Your task to perform on an android device: turn off notifications in google photos Image 0: 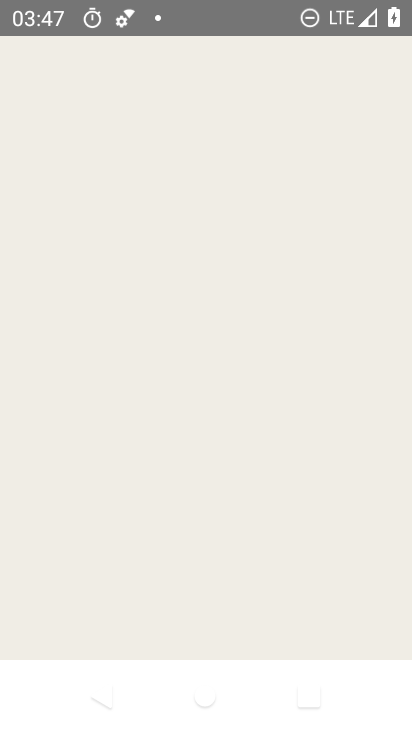
Step 0: drag from (261, 595) to (300, 74)
Your task to perform on an android device: turn off notifications in google photos Image 1: 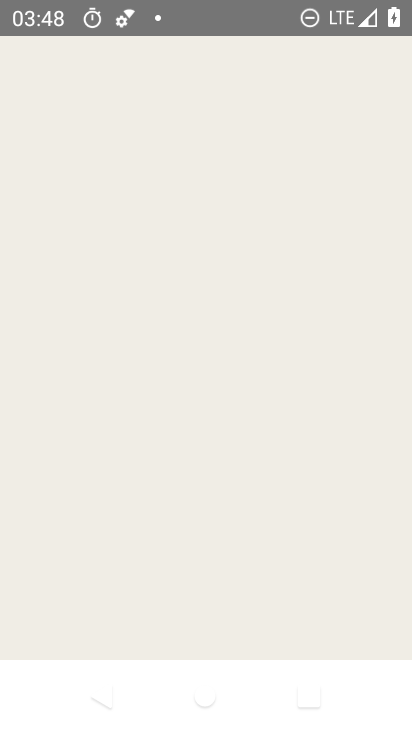
Step 1: press home button
Your task to perform on an android device: turn off notifications in google photos Image 2: 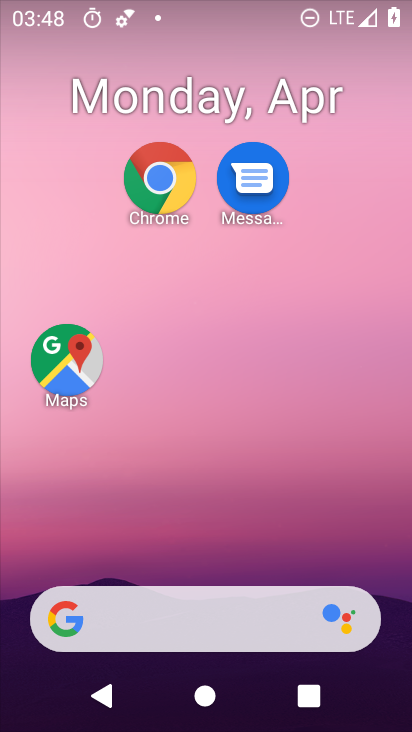
Step 2: drag from (295, 604) to (325, 0)
Your task to perform on an android device: turn off notifications in google photos Image 3: 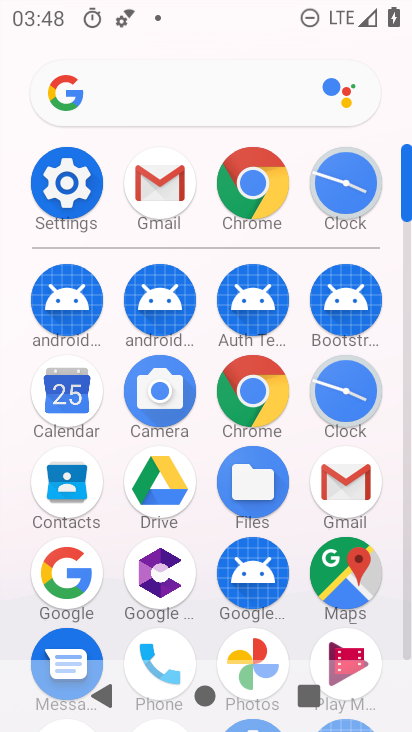
Step 3: drag from (294, 615) to (317, 267)
Your task to perform on an android device: turn off notifications in google photos Image 4: 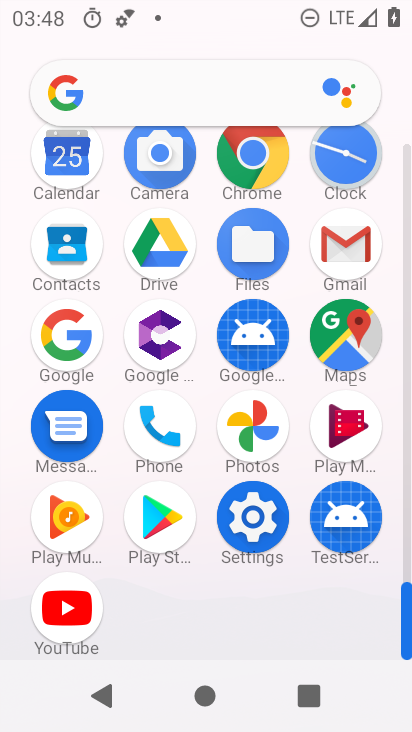
Step 4: click (256, 418)
Your task to perform on an android device: turn off notifications in google photos Image 5: 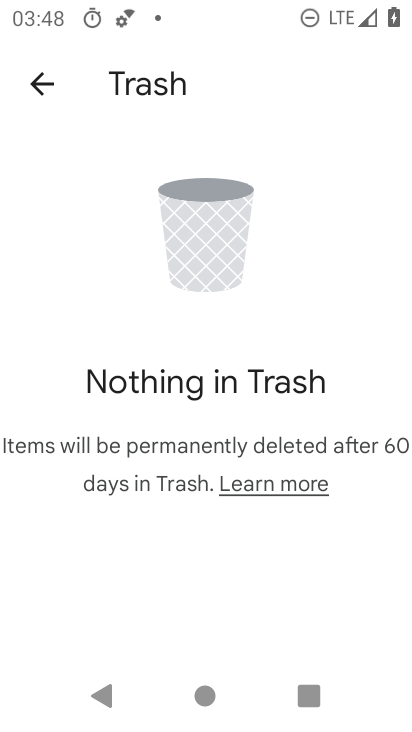
Step 5: click (37, 71)
Your task to perform on an android device: turn off notifications in google photos Image 6: 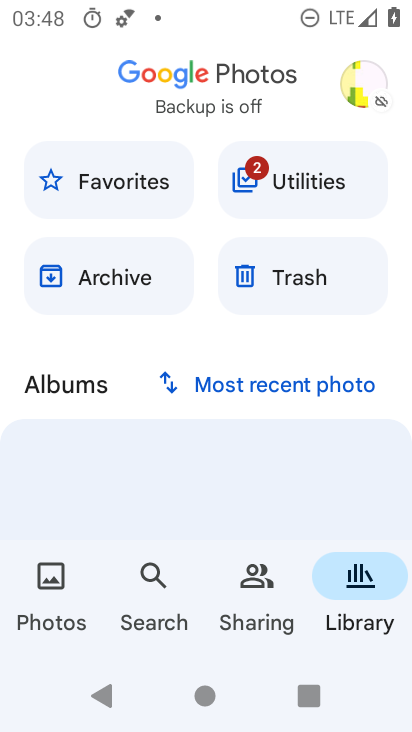
Step 6: drag from (284, 526) to (283, 586)
Your task to perform on an android device: turn off notifications in google photos Image 7: 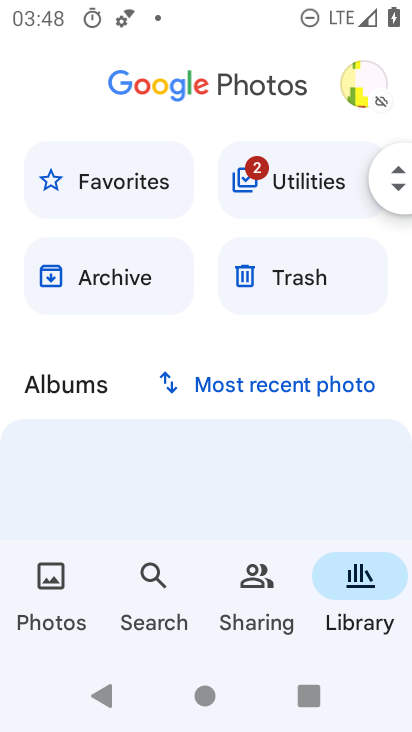
Step 7: click (370, 96)
Your task to perform on an android device: turn off notifications in google photos Image 8: 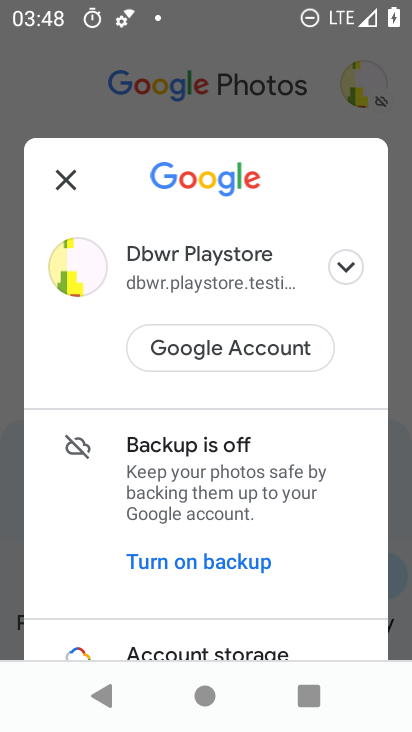
Step 8: drag from (319, 632) to (326, 132)
Your task to perform on an android device: turn off notifications in google photos Image 9: 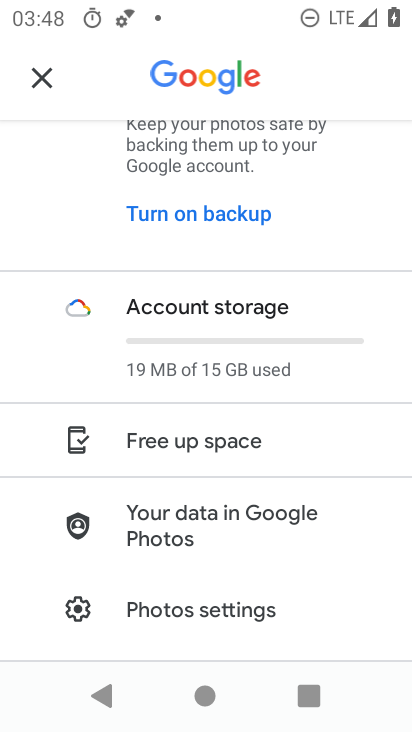
Step 9: drag from (318, 649) to (366, 105)
Your task to perform on an android device: turn off notifications in google photos Image 10: 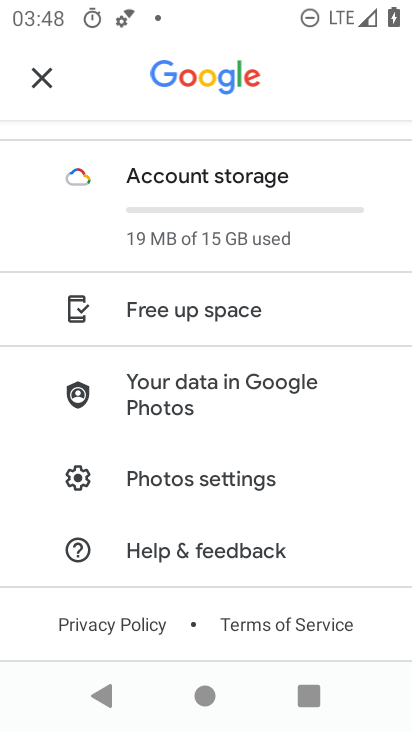
Step 10: drag from (283, 309) to (236, 724)
Your task to perform on an android device: turn off notifications in google photos Image 11: 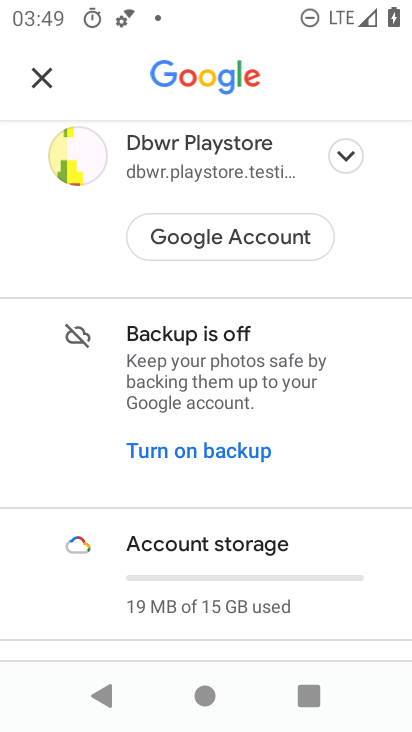
Step 11: drag from (277, 381) to (262, 638)
Your task to perform on an android device: turn off notifications in google photos Image 12: 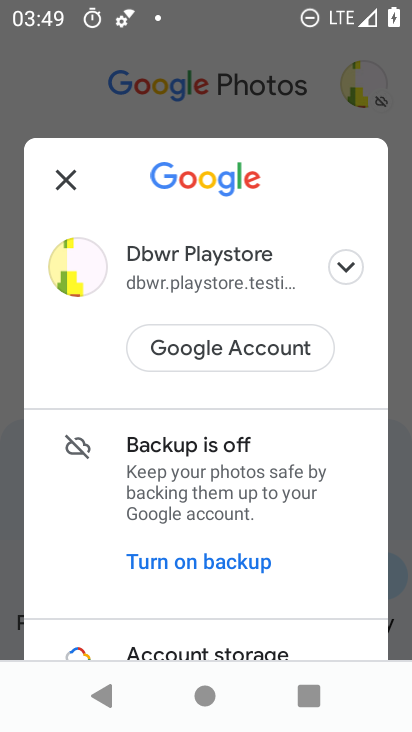
Step 12: click (284, 496)
Your task to perform on an android device: turn off notifications in google photos Image 13: 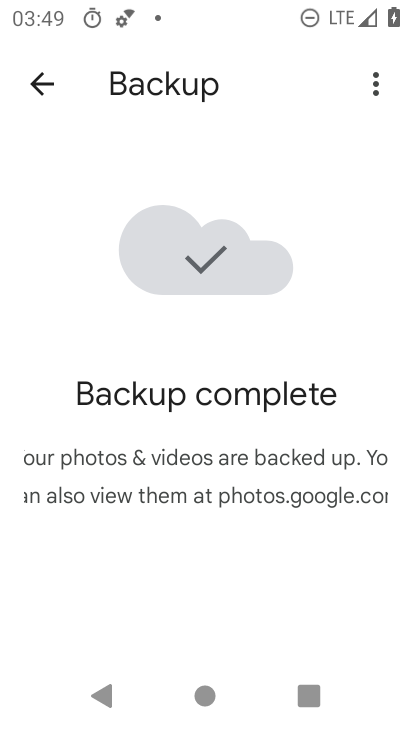
Step 13: click (376, 84)
Your task to perform on an android device: turn off notifications in google photos Image 14: 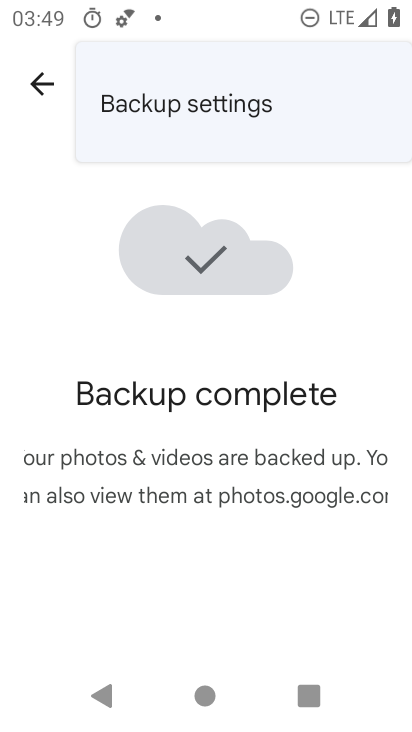
Step 14: click (220, 109)
Your task to perform on an android device: turn off notifications in google photos Image 15: 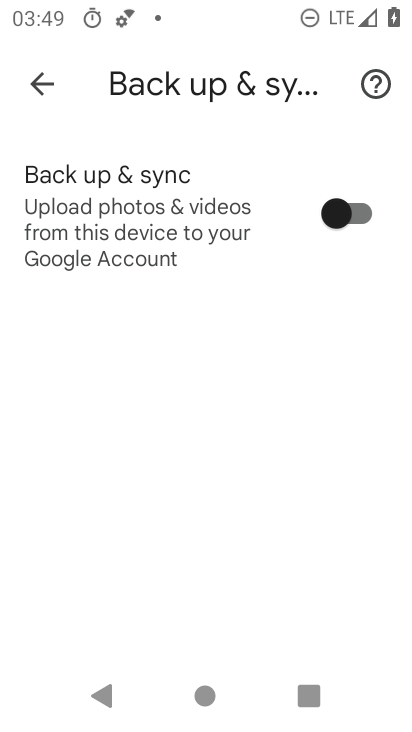
Step 15: click (361, 212)
Your task to perform on an android device: turn off notifications in google photos Image 16: 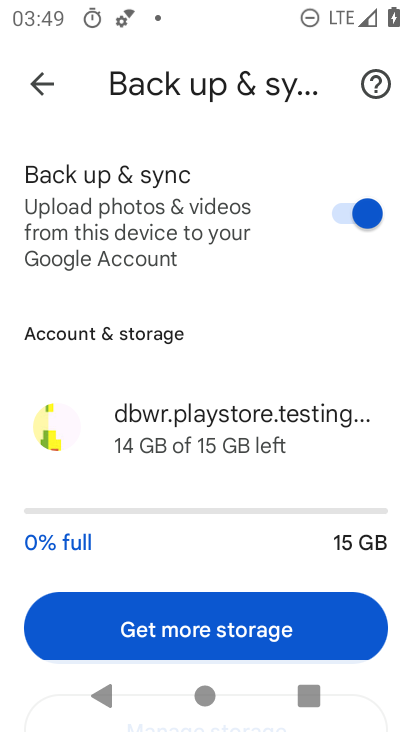
Step 16: drag from (215, 567) to (232, 123)
Your task to perform on an android device: turn off notifications in google photos Image 17: 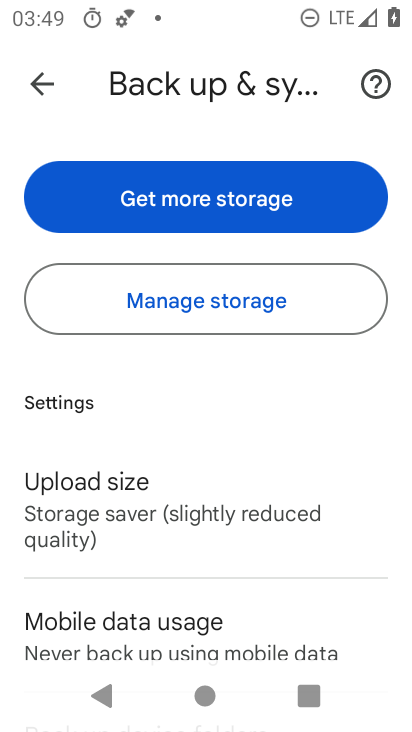
Step 17: click (264, 526)
Your task to perform on an android device: turn off notifications in google photos Image 18: 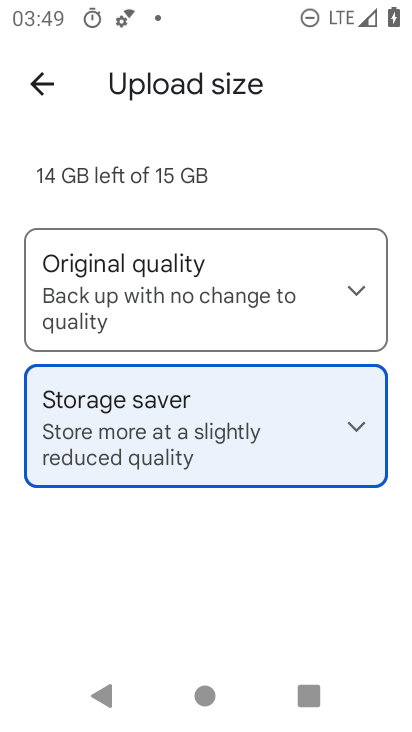
Step 18: click (44, 87)
Your task to perform on an android device: turn off notifications in google photos Image 19: 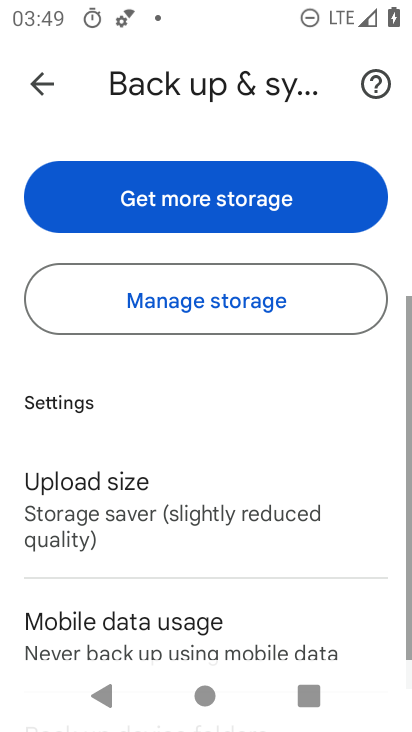
Step 19: drag from (208, 637) to (271, 104)
Your task to perform on an android device: turn off notifications in google photos Image 20: 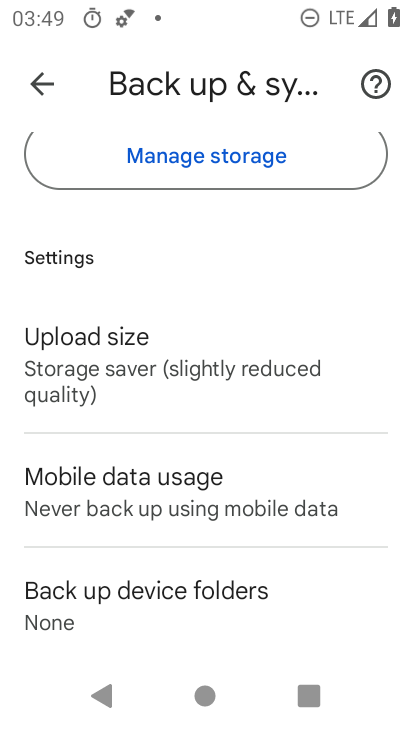
Step 20: drag from (247, 247) to (405, 716)
Your task to perform on an android device: turn off notifications in google photos Image 21: 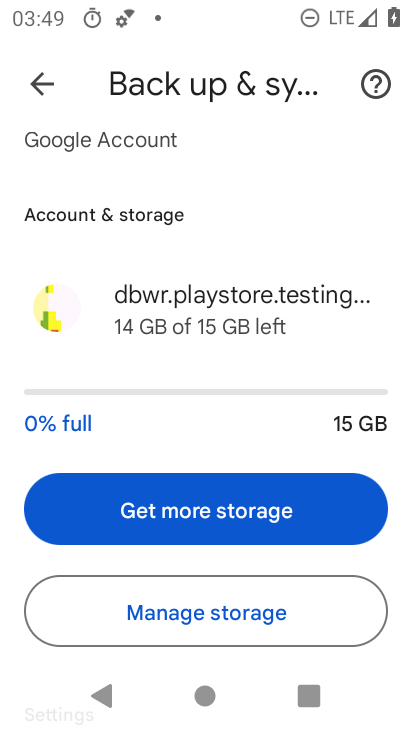
Step 21: click (36, 84)
Your task to perform on an android device: turn off notifications in google photos Image 22: 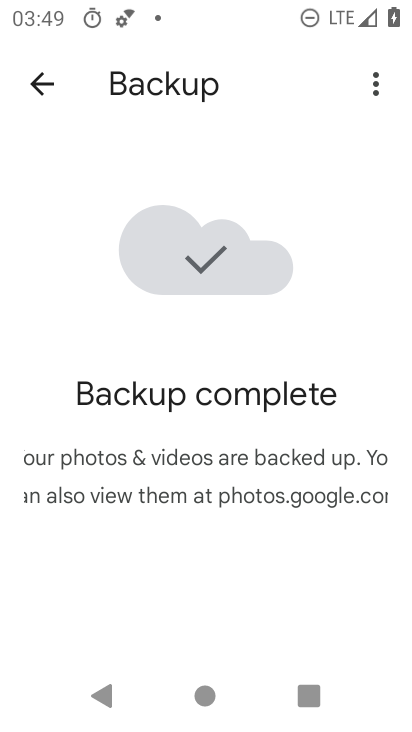
Step 22: click (44, 89)
Your task to perform on an android device: turn off notifications in google photos Image 23: 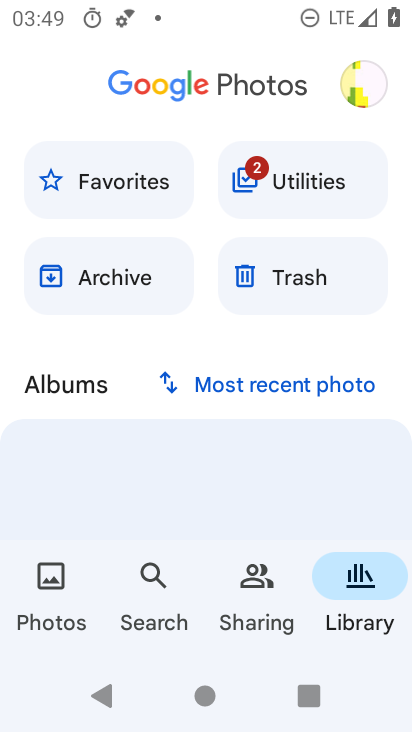
Step 23: click (365, 83)
Your task to perform on an android device: turn off notifications in google photos Image 24: 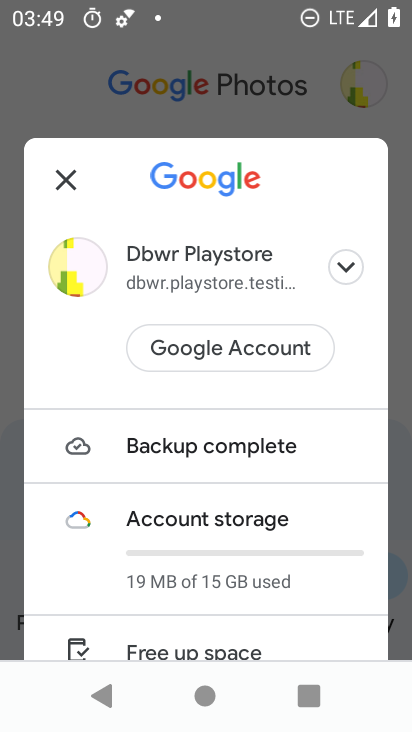
Step 24: drag from (271, 626) to (337, 250)
Your task to perform on an android device: turn off notifications in google photos Image 25: 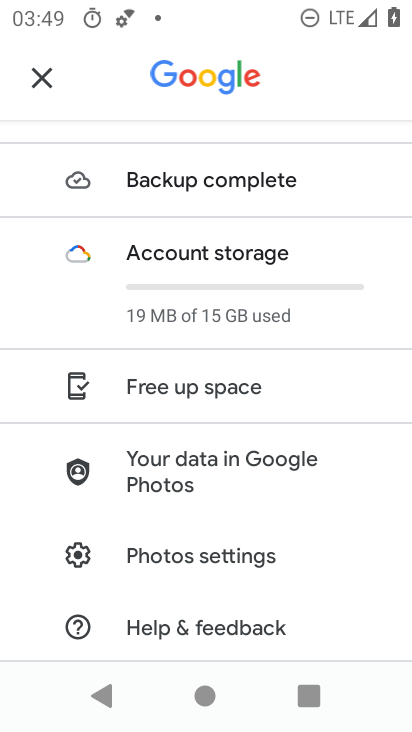
Step 25: click (223, 561)
Your task to perform on an android device: turn off notifications in google photos Image 26: 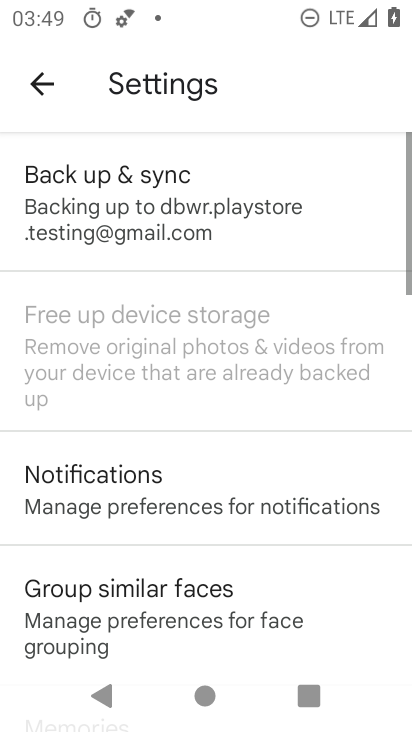
Step 26: drag from (218, 606) to (272, 302)
Your task to perform on an android device: turn off notifications in google photos Image 27: 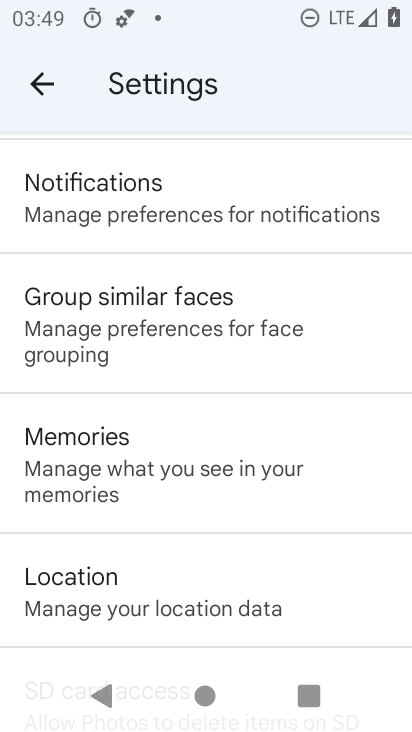
Step 27: click (252, 211)
Your task to perform on an android device: turn off notifications in google photos Image 28: 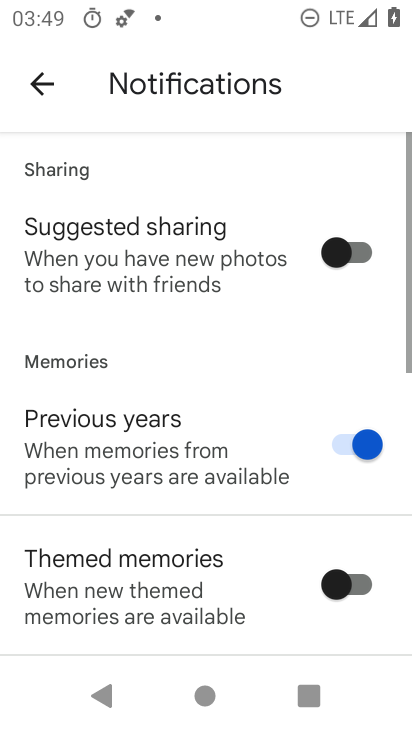
Step 28: drag from (254, 608) to (288, 125)
Your task to perform on an android device: turn off notifications in google photos Image 29: 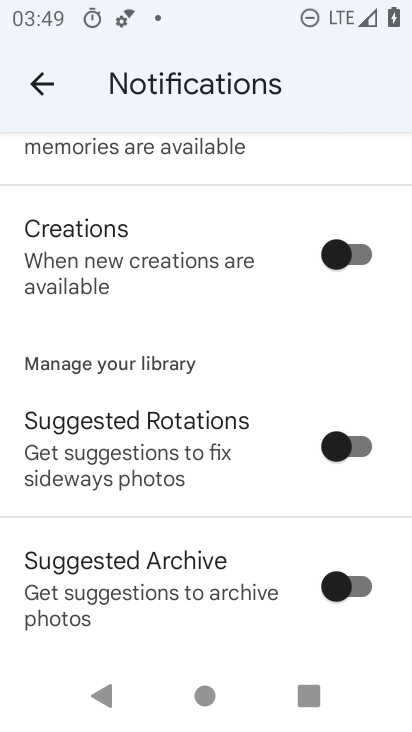
Step 29: drag from (210, 140) to (219, 665)
Your task to perform on an android device: turn off notifications in google photos Image 30: 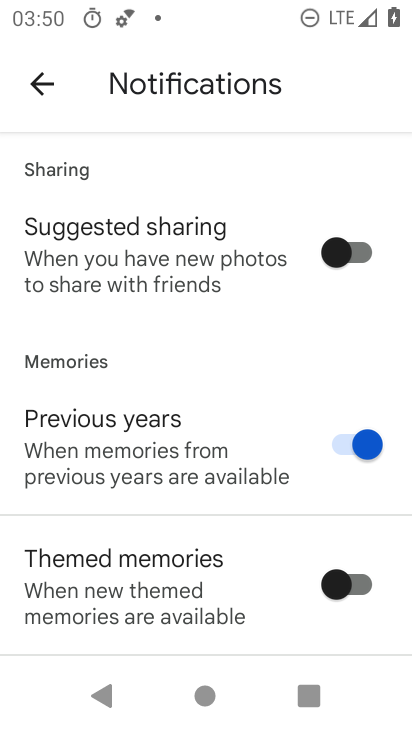
Step 30: drag from (219, 272) to (225, 693)
Your task to perform on an android device: turn off notifications in google photos Image 31: 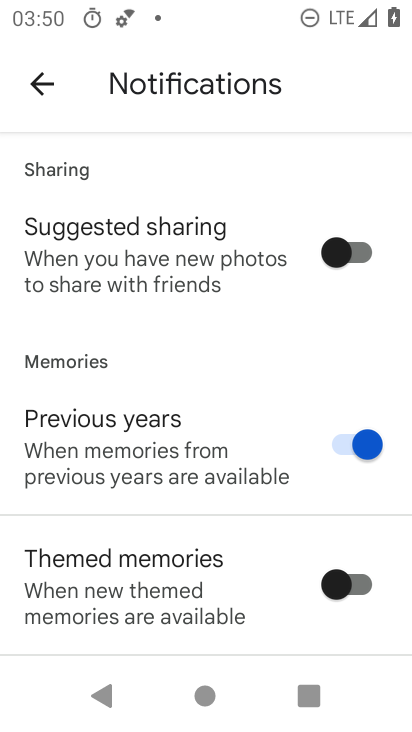
Step 31: drag from (195, 633) to (272, 6)
Your task to perform on an android device: turn off notifications in google photos Image 32: 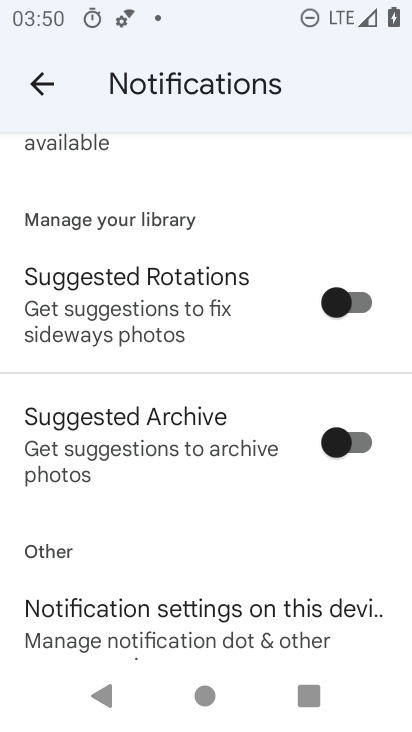
Step 32: drag from (217, 662) to (235, 230)
Your task to perform on an android device: turn off notifications in google photos Image 33: 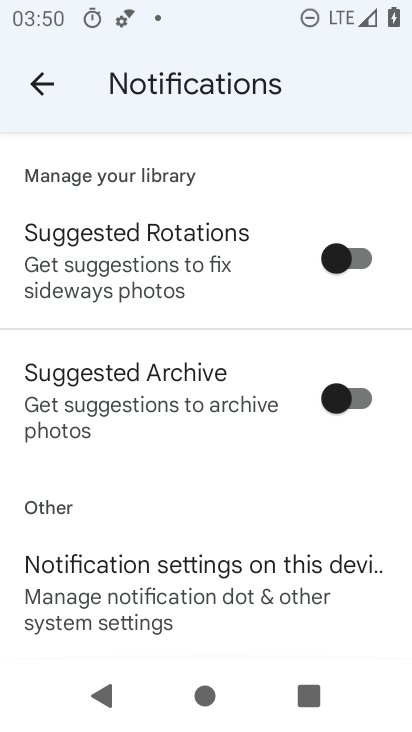
Step 33: click (201, 599)
Your task to perform on an android device: turn off notifications in google photos Image 34: 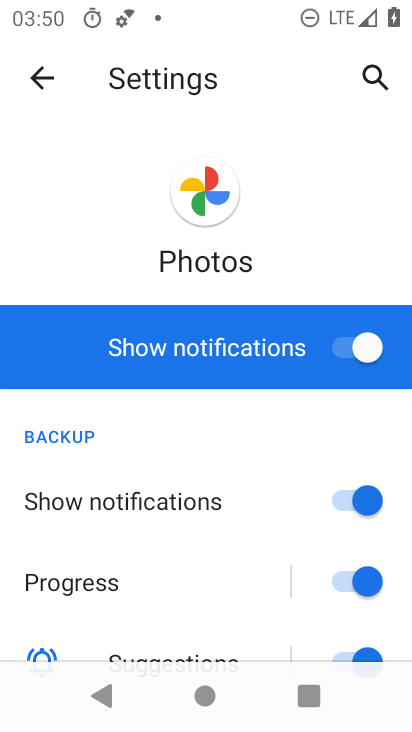
Step 34: click (338, 343)
Your task to perform on an android device: turn off notifications in google photos Image 35: 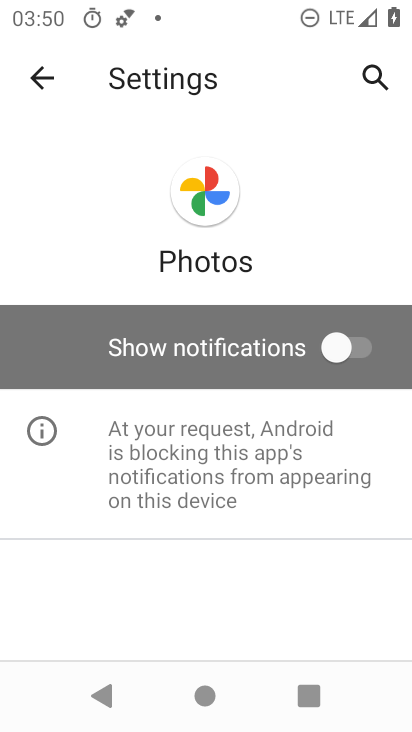
Step 35: task complete